Your task to perform on an android device: Go to notification settings Image 0: 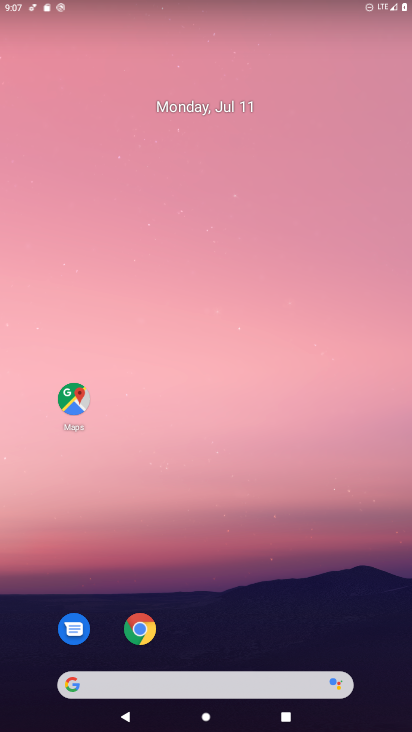
Step 0: drag from (311, 7) to (355, 508)
Your task to perform on an android device: Go to notification settings Image 1: 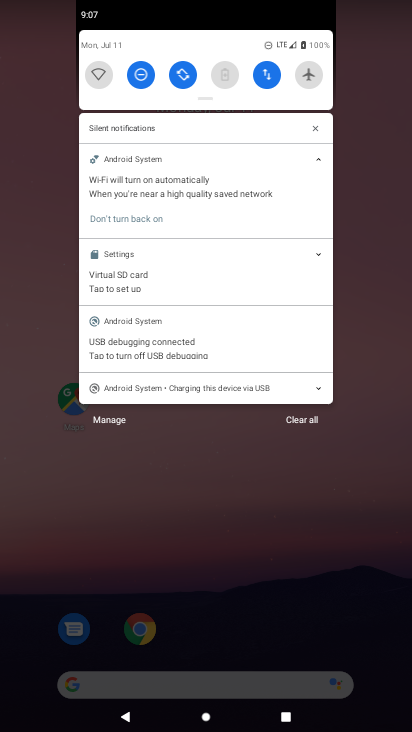
Step 1: drag from (229, 55) to (279, 484)
Your task to perform on an android device: Go to notification settings Image 2: 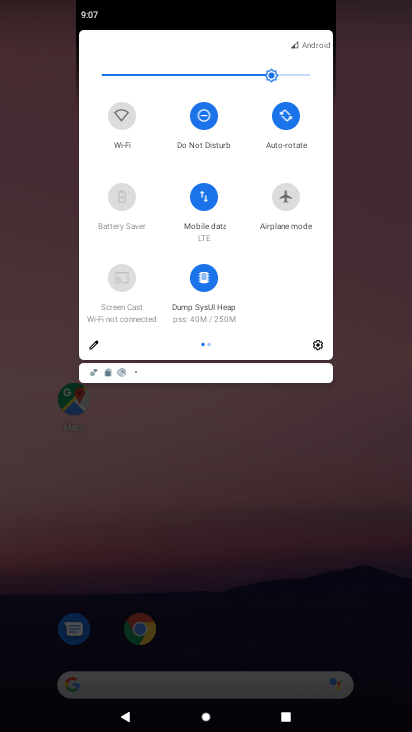
Step 2: click (317, 346)
Your task to perform on an android device: Go to notification settings Image 3: 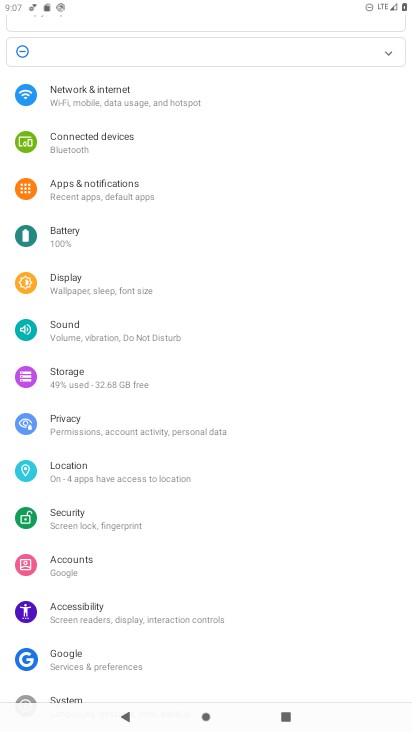
Step 3: click (153, 187)
Your task to perform on an android device: Go to notification settings Image 4: 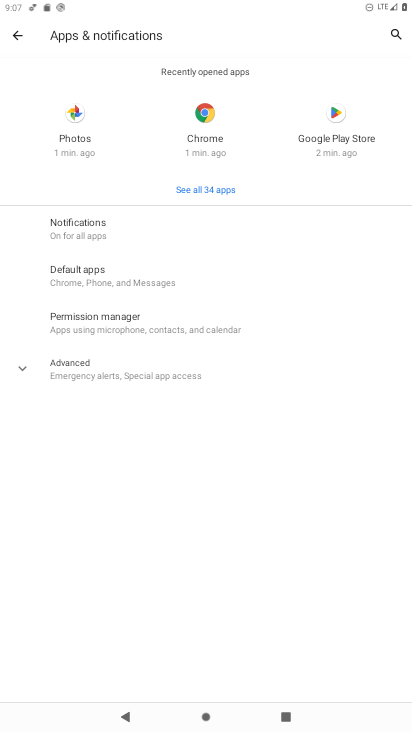
Step 4: task complete